Your task to perform on an android device: find which apps use the phone's location Image 0: 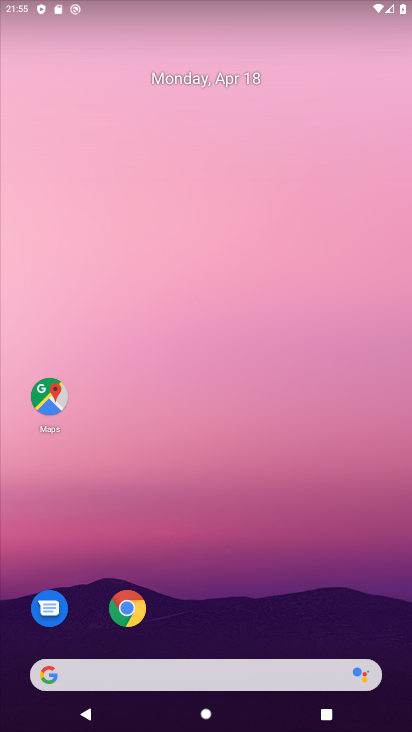
Step 0: drag from (230, 599) to (223, 131)
Your task to perform on an android device: find which apps use the phone's location Image 1: 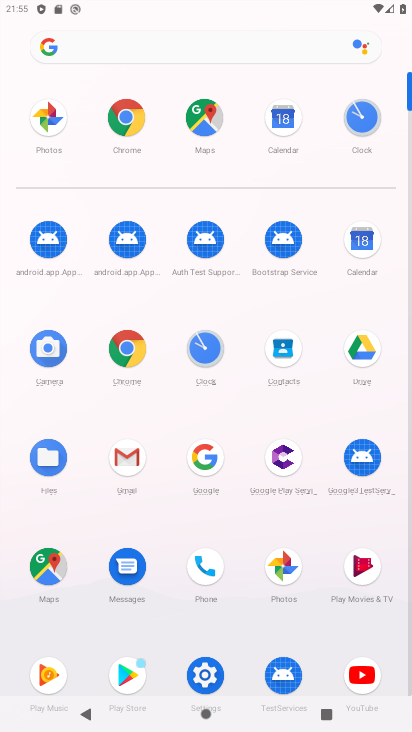
Step 1: drag from (164, 632) to (175, 296)
Your task to perform on an android device: find which apps use the phone's location Image 2: 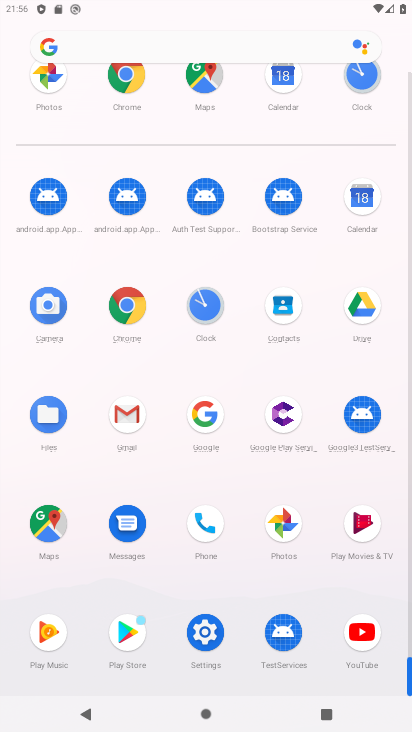
Step 2: click (194, 626)
Your task to perform on an android device: find which apps use the phone's location Image 3: 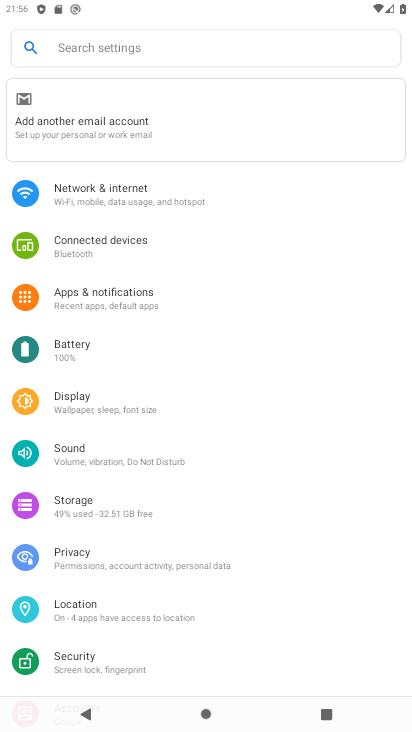
Step 3: click (119, 612)
Your task to perform on an android device: find which apps use the phone's location Image 4: 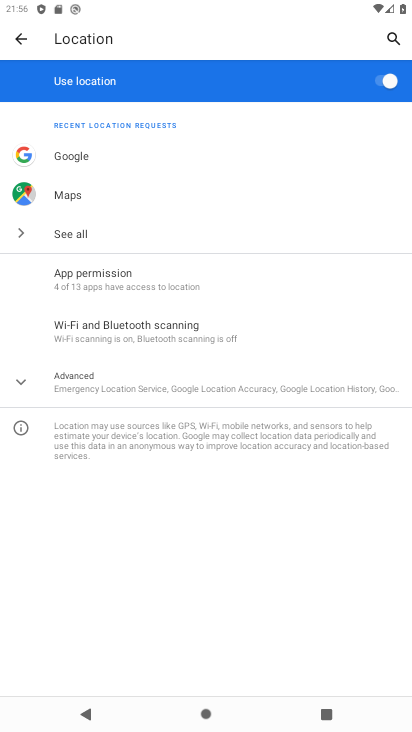
Step 4: click (129, 278)
Your task to perform on an android device: find which apps use the phone's location Image 5: 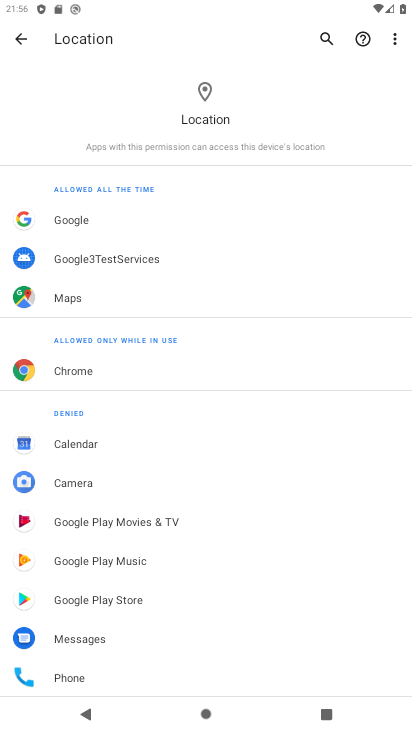
Step 5: task complete